Your task to perform on an android device: Do I have any events today? Image 0: 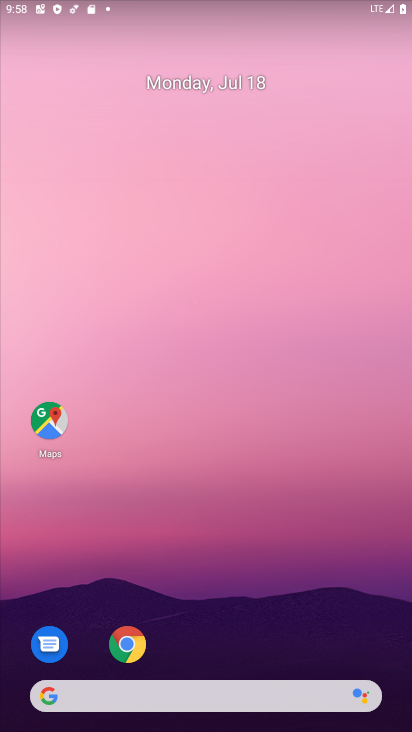
Step 0: drag from (353, 595) to (362, 192)
Your task to perform on an android device: Do I have any events today? Image 1: 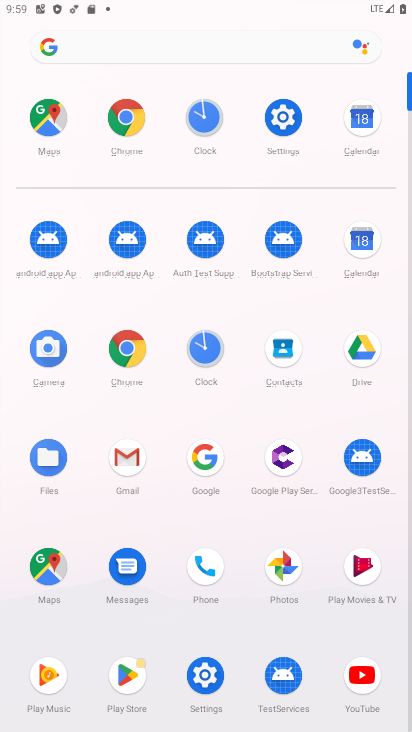
Step 1: click (365, 243)
Your task to perform on an android device: Do I have any events today? Image 2: 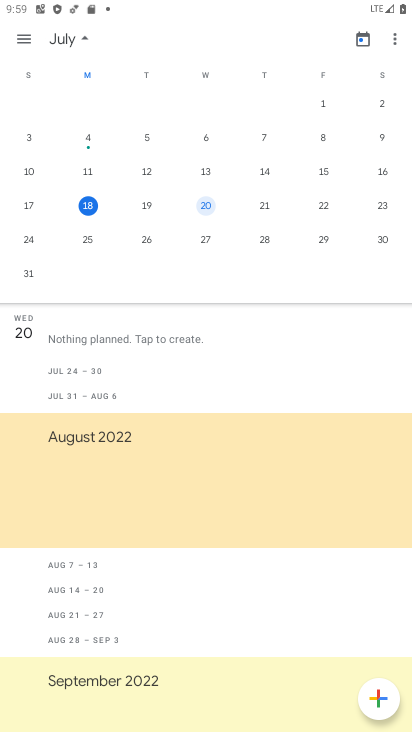
Step 2: click (143, 202)
Your task to perform on an android device: Do I have any events today? Image 3: 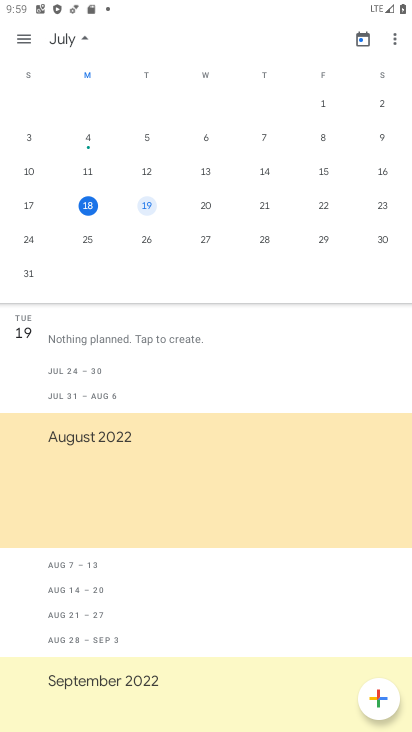
Step 3: task complete